Your task to perform on an android device: Do I have any events today? Image 0: 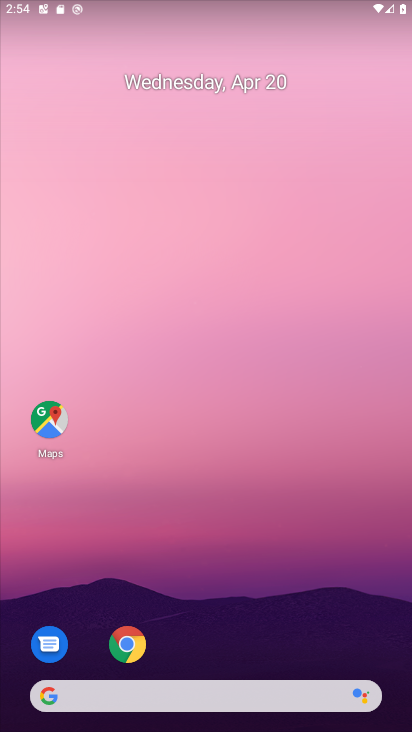
Step 0: drag from (219, 515) to (282, 42)
Your task to perform on an android device: Do I have any events today? Image 1: 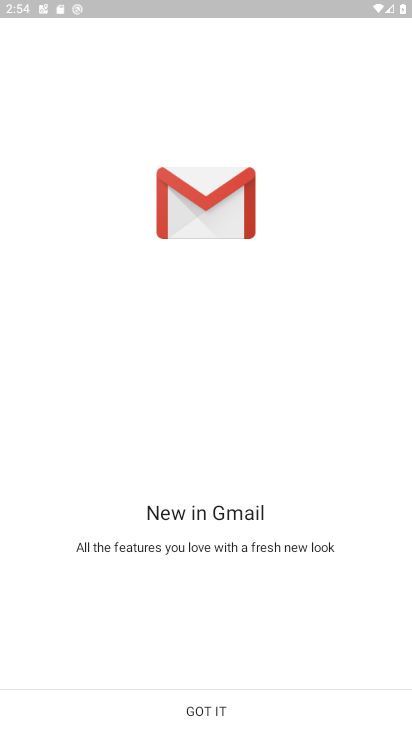
Step 1: press home button
Your task to perform on an android device: Do I have any events today? Image 2: 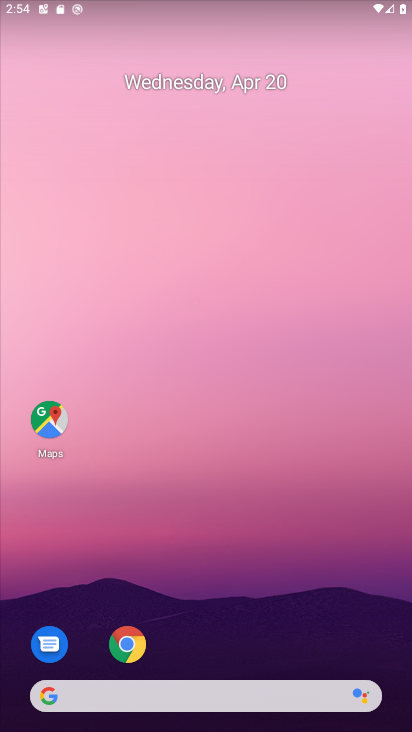
Step 2: drag from (207, 482) to (284, 49)
Your task to perform on an android device: Do I have any events today? Image 3: 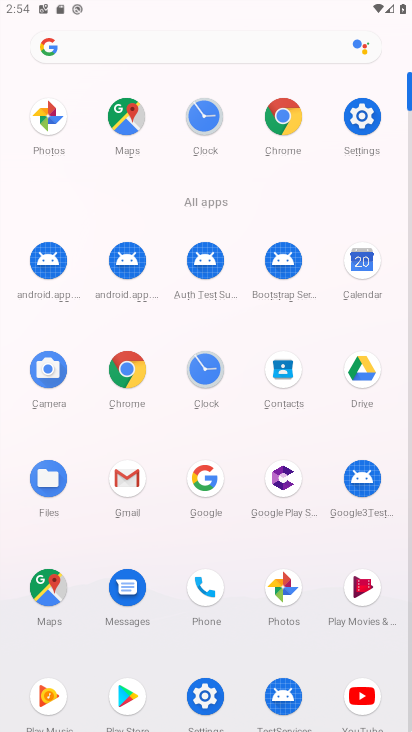
Step 3: click (359, 258)
Your task to perform on an android device: Do I have any events today? Image 4: 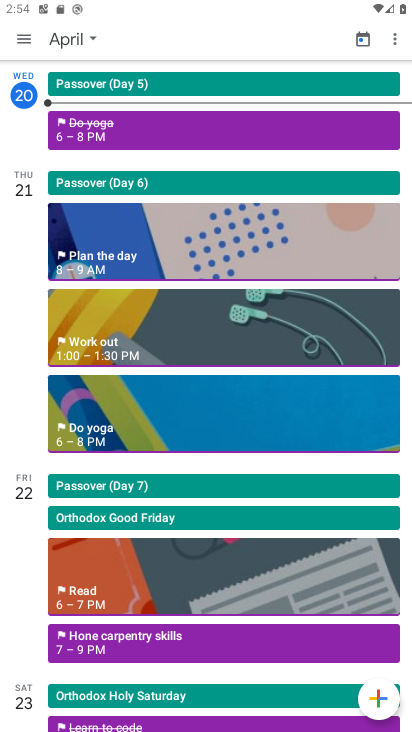
Step 4: click (135, 117)
Your task to perform on an android device: Do I have any events today? Image 5: 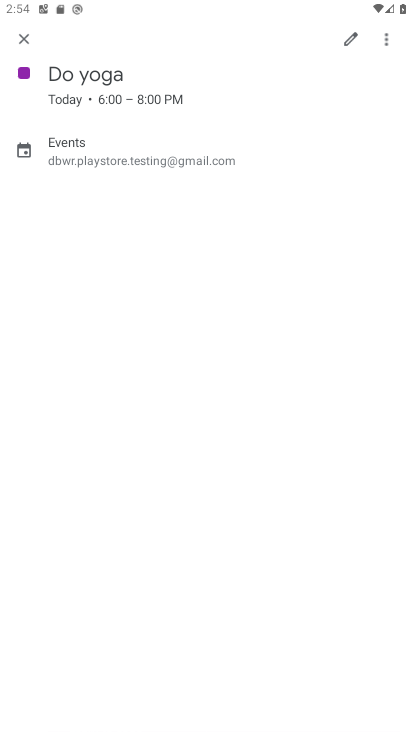
Step 5: task complete